Your task to perform on an android device: open app "eBay: The shopping marketplace" Image 0: 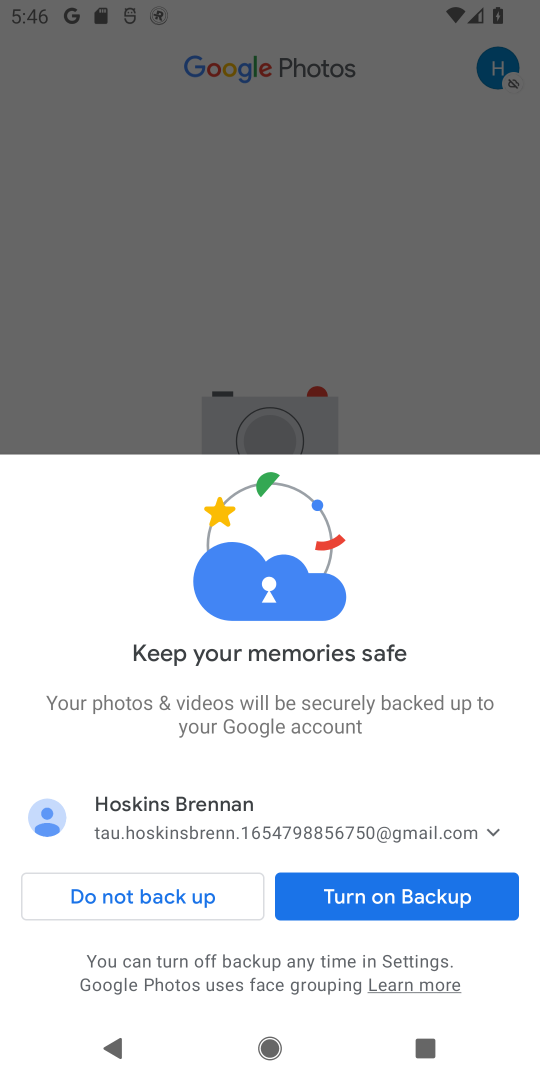
Step 0: press back button
Your task to perform on an android device: open app "eBay: The shopping marketplace" Image 1: 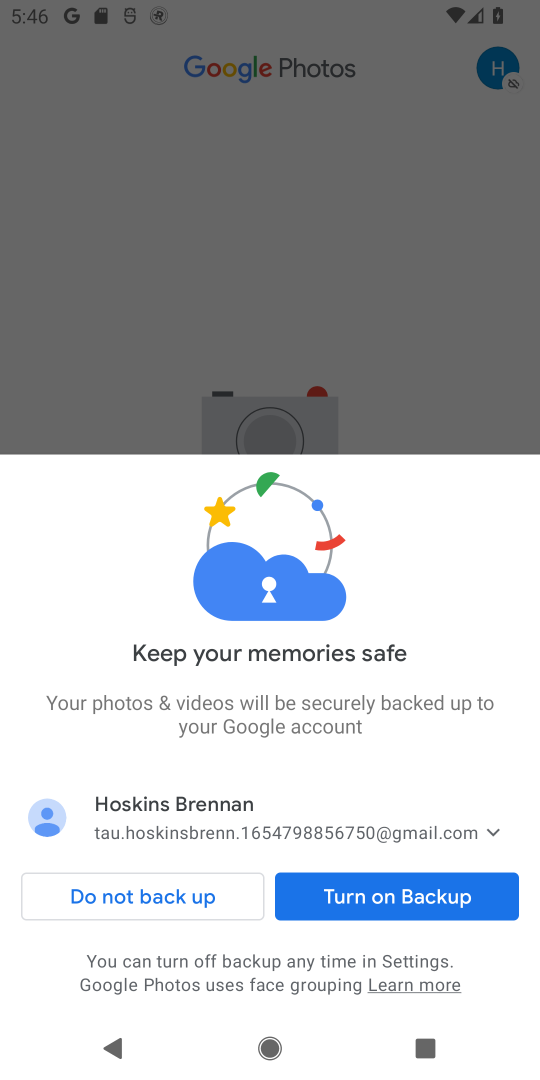
Step 1: press home button
Your task to perform on an android device: open app "eBay: The shopping marketplace" Image 2: 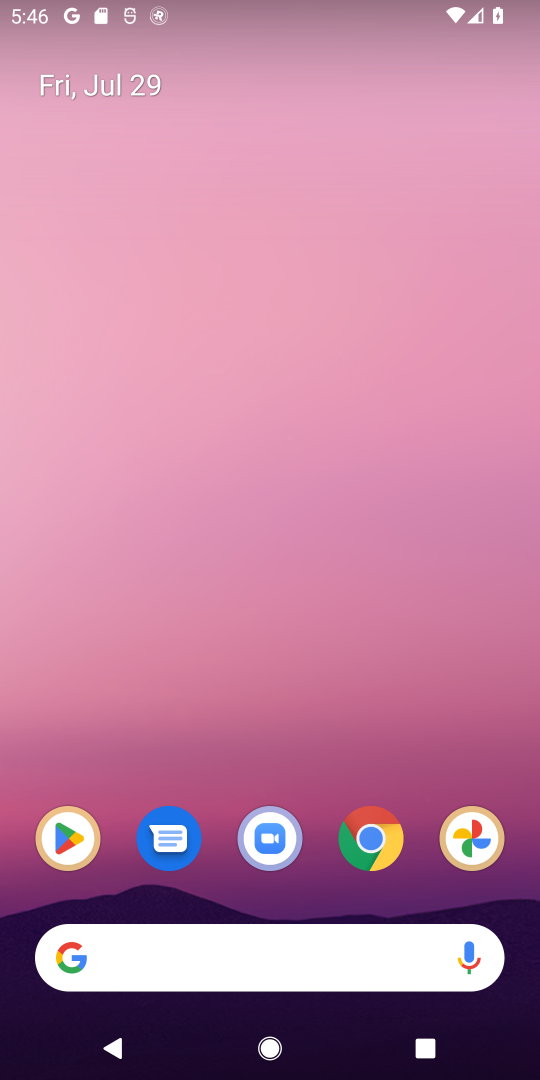
Step 2: click (73, 866)
Your task to perform on an android device: open app "eBay: The shopping marketplace" Image 3: 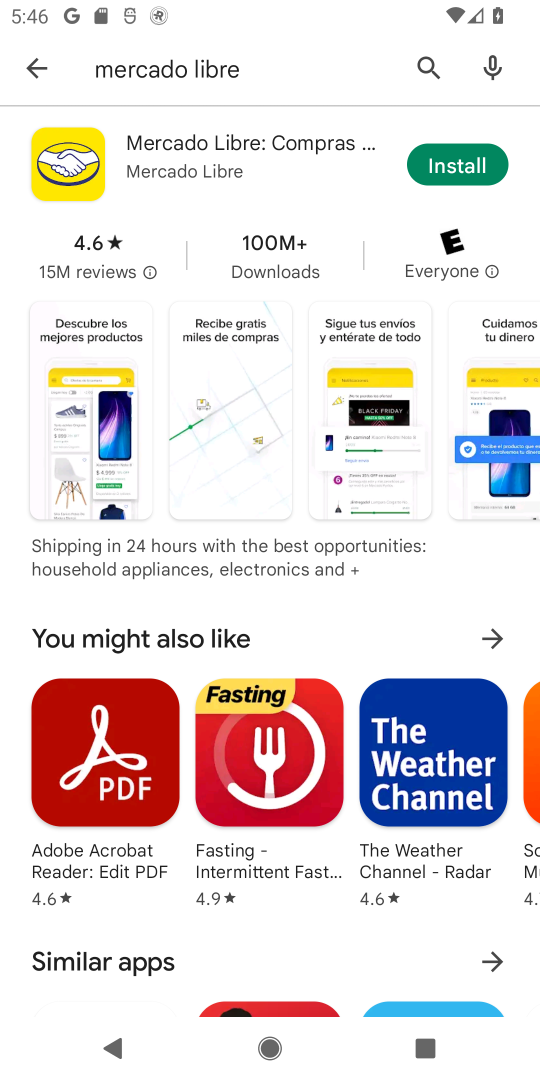
Step 3: click (422, 65)
Your task to perform on an android device: open app "eBay: The shopping marketplace" Image 4: 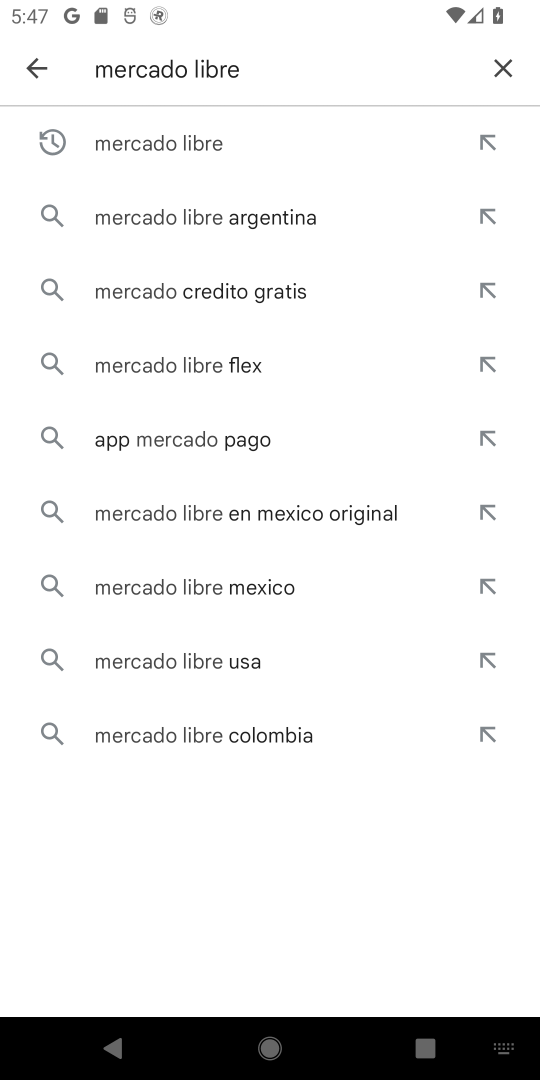
Step 4: click (502, 63)
Your task to perform on an android device: open app "eBay: The shopping marketplace" Image 5: 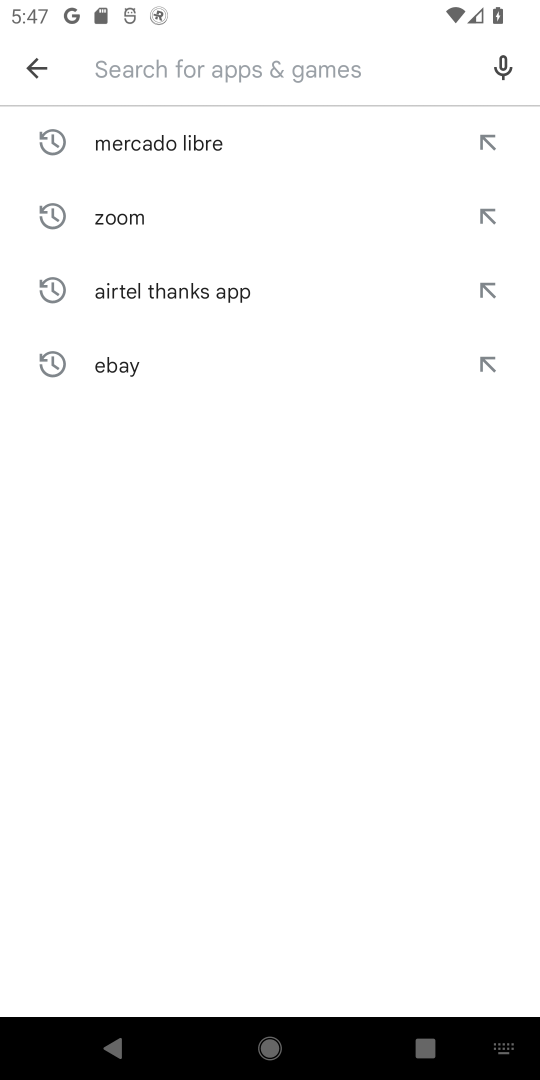
Step 5: click (243, 82)
Your task to perform on an android device: open app "eBay: The shopping marketplace" Image 6: 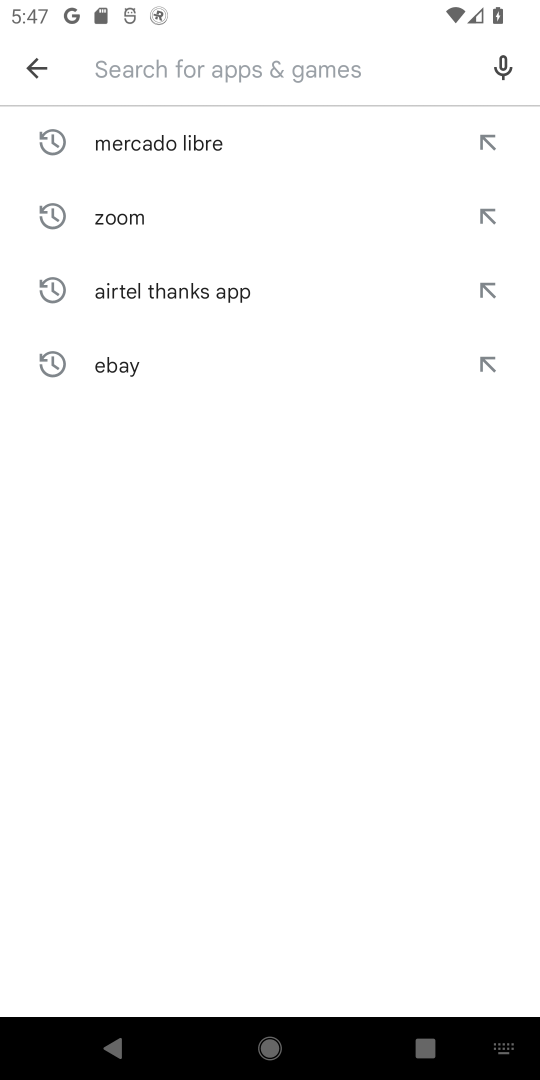
Step 6: click (157, 378)
Your task to perform on an android device: open app "eBay: The shopping marketplace" Image 7: 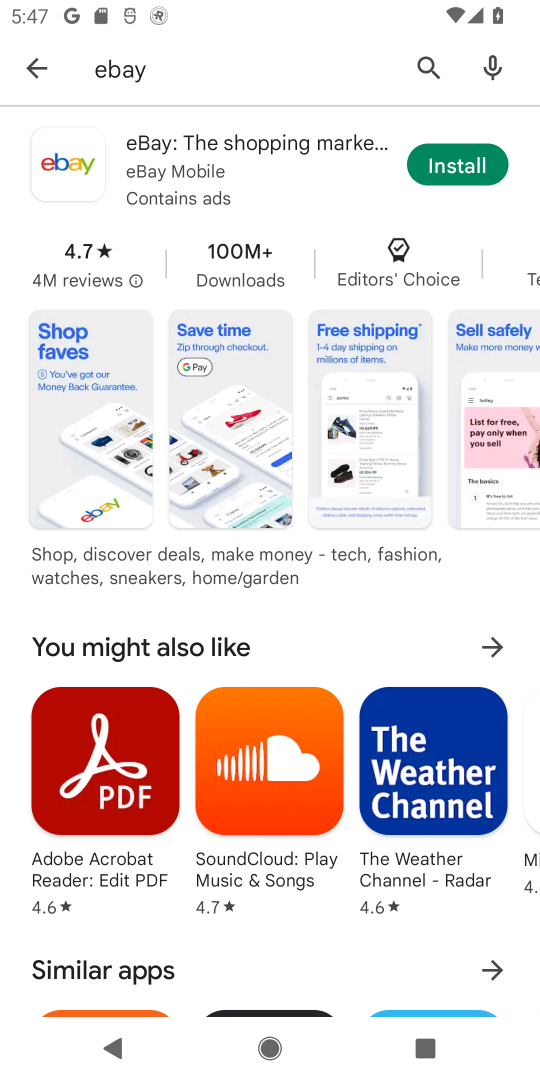
Step 7: task complete